Your task to perform on an android device: open chrome and create a bookmark for the current page Image 0: 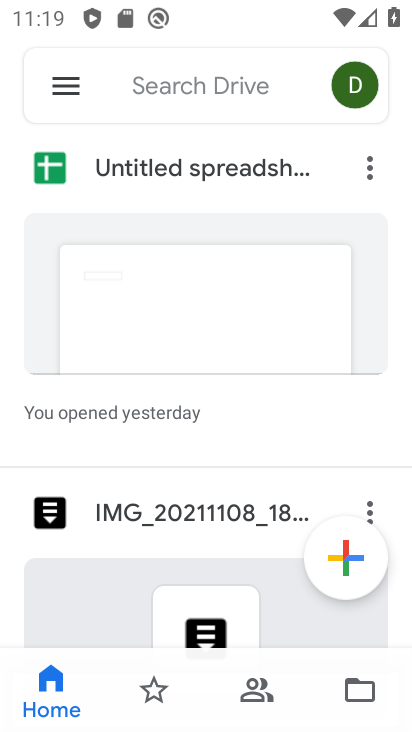
Step 0: press home button
Your task to perform on an android device: open chrome and create a bookmark for the current page Image 1: 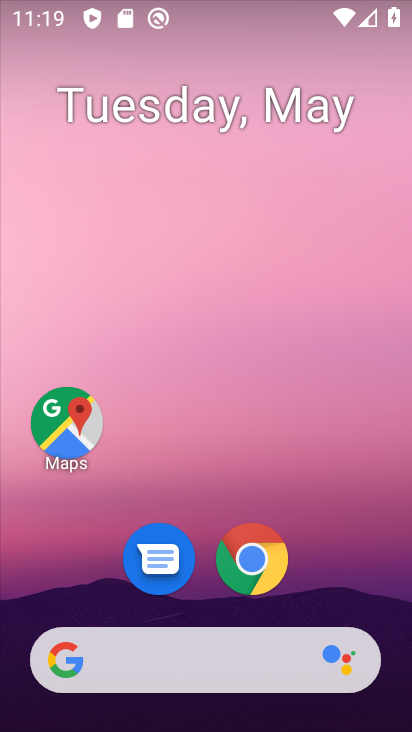
Step 1: click (275, 563)
Your task to perform on an android device: open chrome and create a bookmark for the current page Image 2: 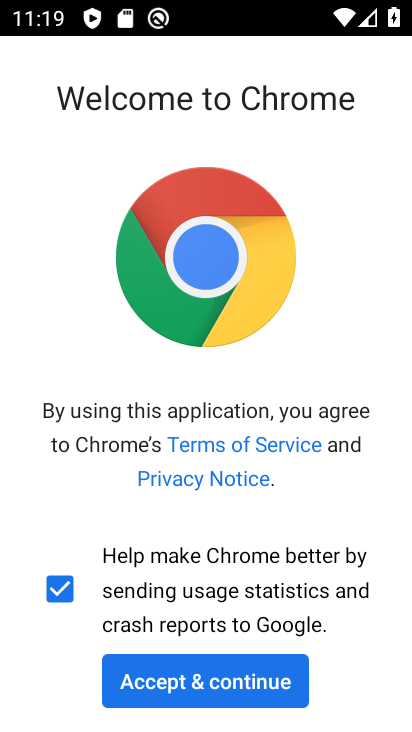
Step 2: click (199, 697)
Your task to perform on an android device: open chrome and create a bookmark for the current page Image 3: 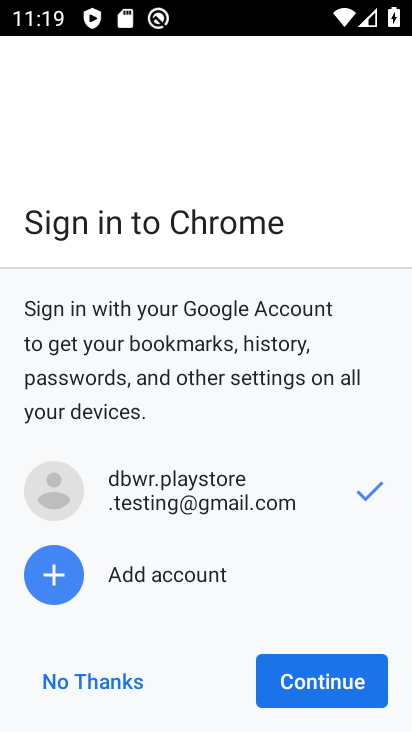
Step 3: click (280, 679)
Your task to perform on an android device: open chrome and create a bookmark for the current page Image 4: 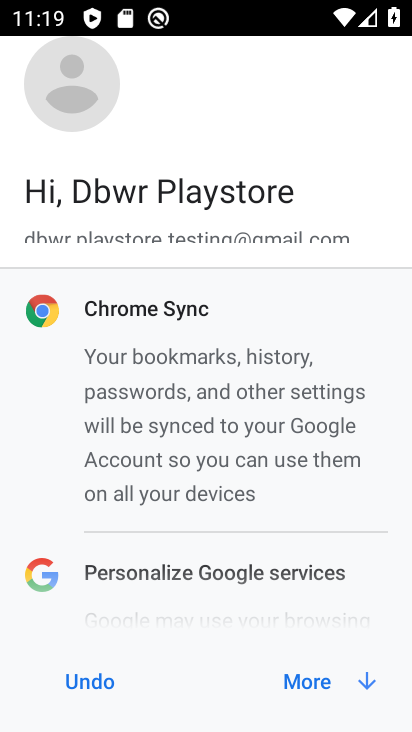
Step 4: click (280, 679)
Your task to perform on an android device: open chrome and create a bookmark for the current page Image 5: 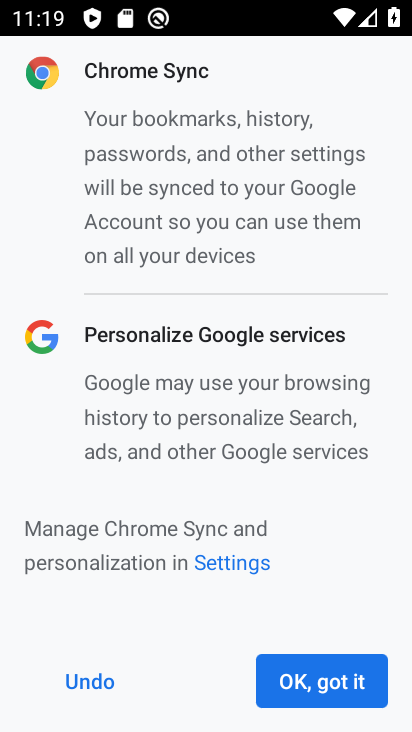
Step 5: click (298, 683)
Your task to perform on an android device: open chrome and create a bookmark for the current page Image 6: 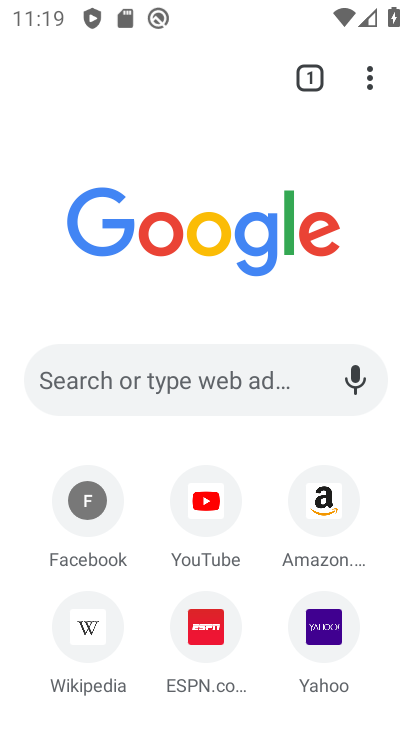
Step 6: click (365, 75)
Your task to perform on an android device: open chrome and create a bookmark for the current page Image 7: 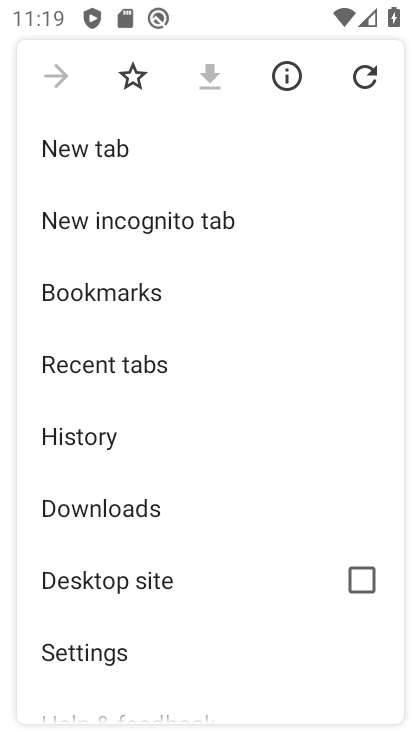
Step 7: click (127, 296)
Your task to perform on an android device: open chrome and create a bookmark for the current page Image 8: 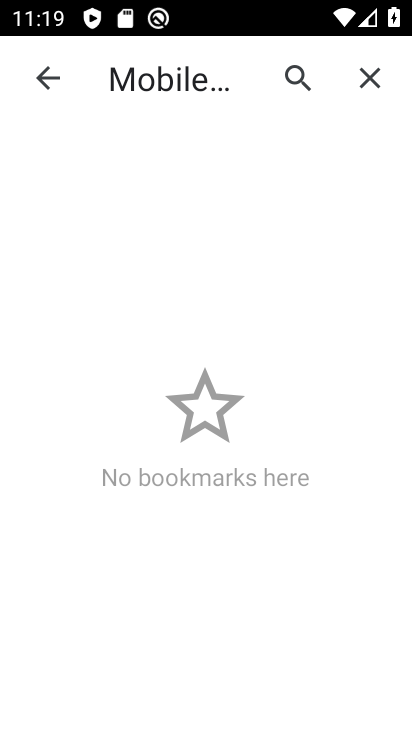
Step 8: task complete